Your task to perform on an android device: Open Youtube and go to the subscriptions tab Image 0: 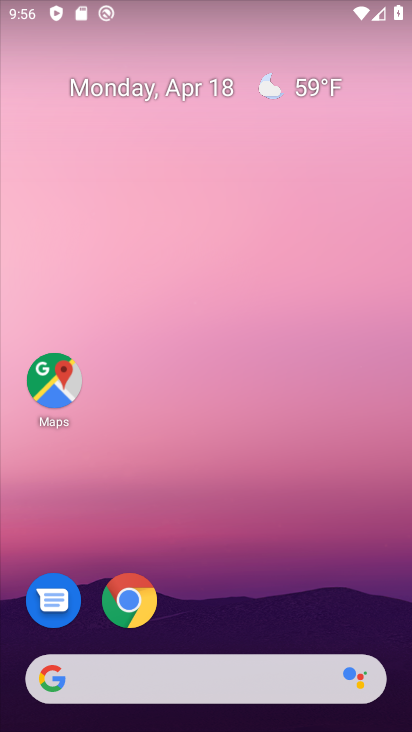
Step 0: drag from (236, 530) to (171, 41)
Your task to perform on an android device: Open Youtube and go to the subscriptions tab Image 1: 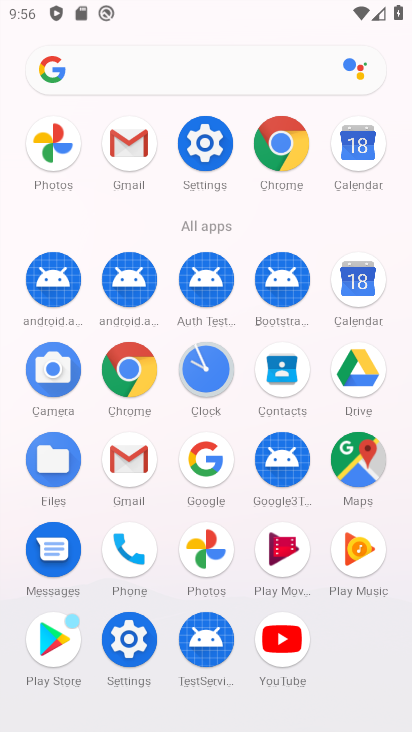
Step 1: click (287, 637)
Your task to perform on an android device: Open Youtube and go to the subscriptions tab Image 2: 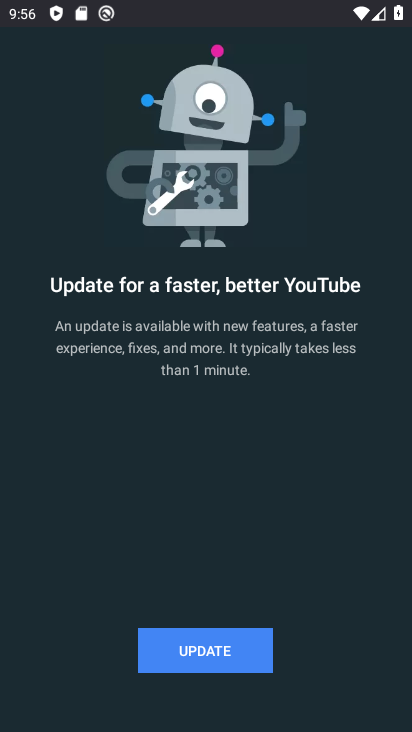
Step 2: click (209, 653)
Your task to perform on an android device: Open Youtube and go to the subscriptions tab Image 3: 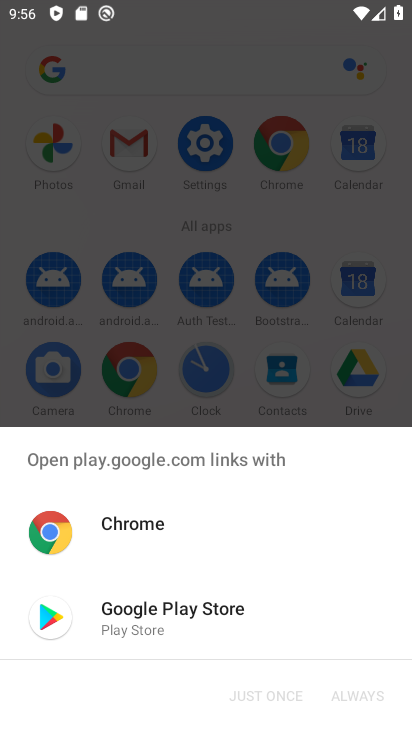
Step 3: click (127, 602)
Your task to perform on an android device: Open Youtube and go to the subscriptions tab Image 4: 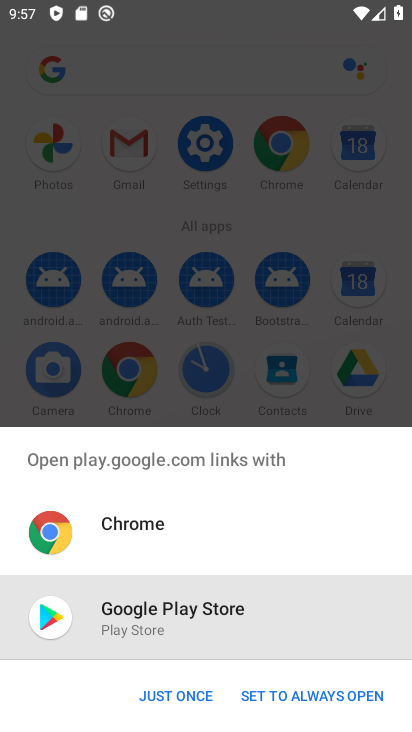
Step 4: click (268, 695)
Your task to perform on an android device: Open Youtube and go to the subscriptions tab Image 5: 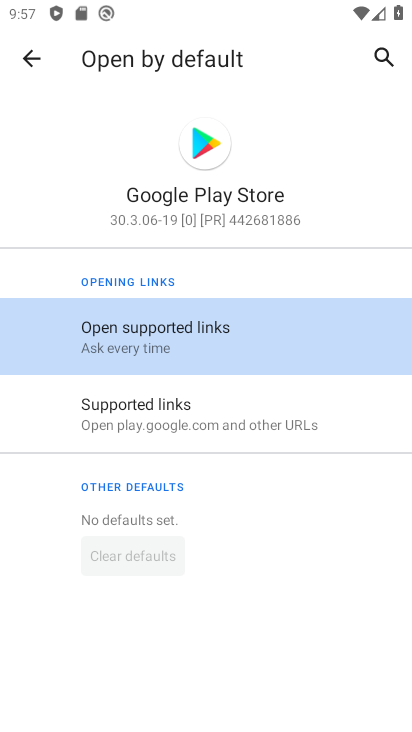
Step 5: task complete